Your task to perform on an android device: Turn on the flashlight Image 0: 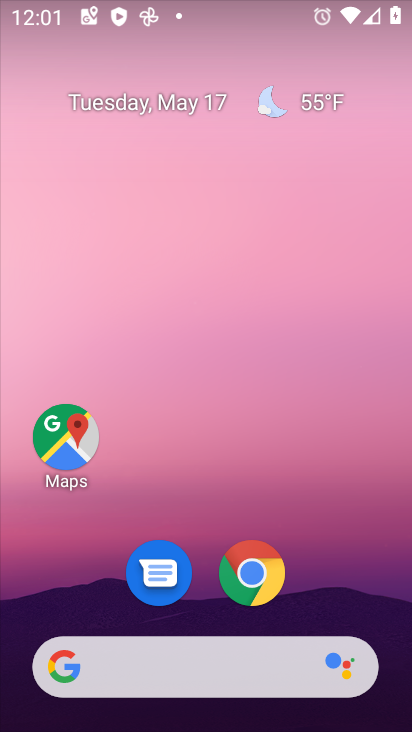
Step 0: drag from (352, 13) to (333, 486)
Your task to perform on an android device: Turn on the flashlight Image 1: 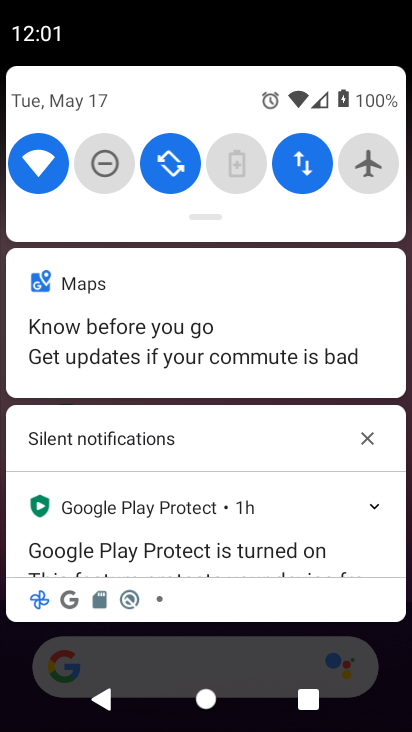
Step 1: drag from (295, 217) to (278, 642)
Your task to perform on an android device: Turn on the flashlight Image 2: 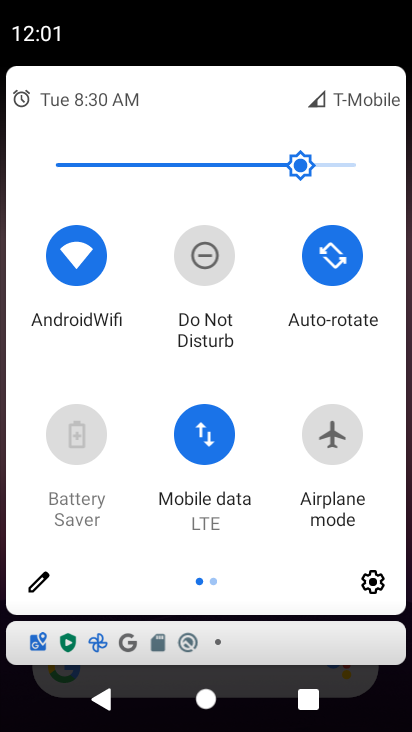
Step 2: click (45, 573)
Your task to perform on an android device: Turn on the flashlight Image 3: 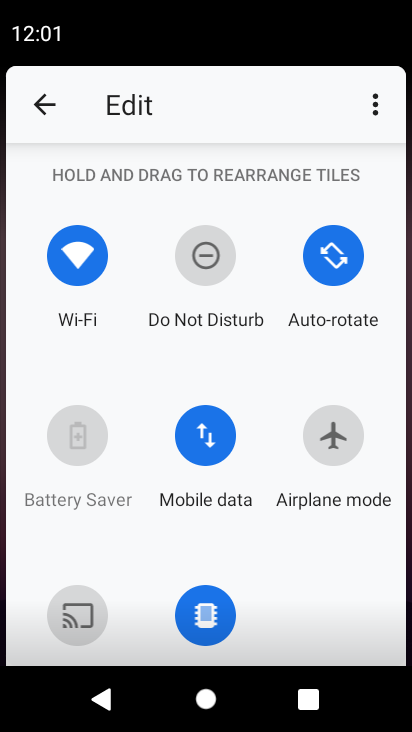
Step 3: task complete